Your task to perform on an android device: clear all cookies in the chrome app Image 0: 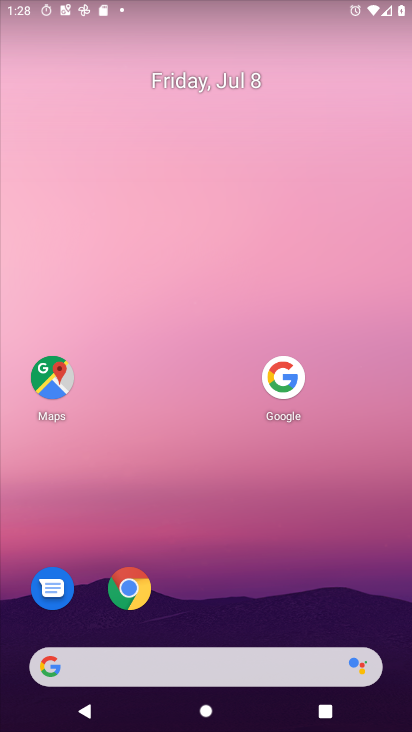
Step 0: click (125, 595)
Your task to perform on an android device: clear all cookies in the chrome app Image 1: 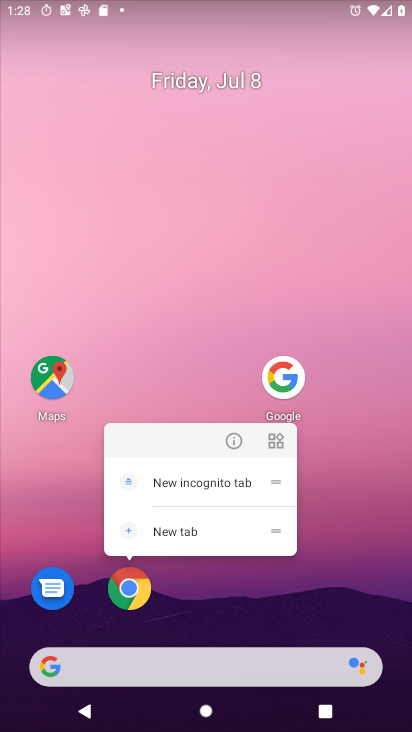
Step 1: click (141, 588)
Your task to perform on an android device: clear all cookies in the chrome app Image 2: 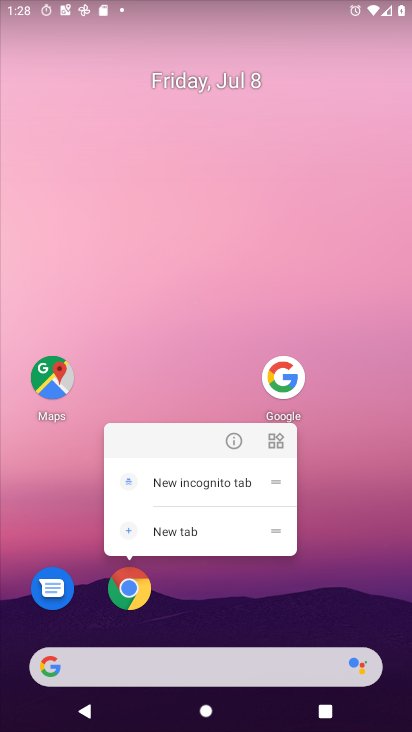
Step 2: click (134, 585)
Your task to perform on an android device: clear all cookies in the chrome app Image 3: 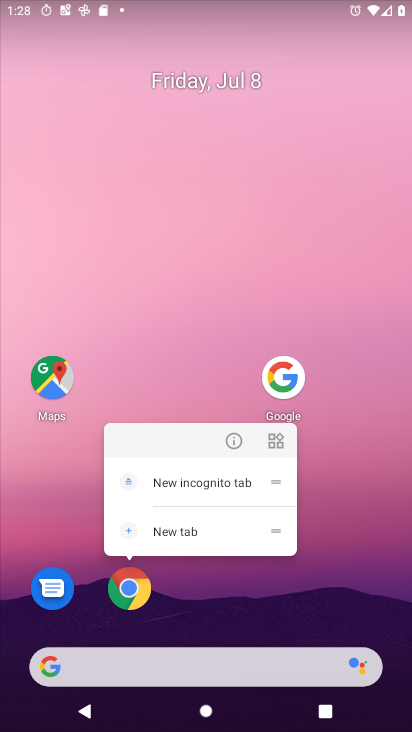
Step 3: click (122, 597)
Your task to perform on an android device: clear all cookies in the chrome app Image 4: 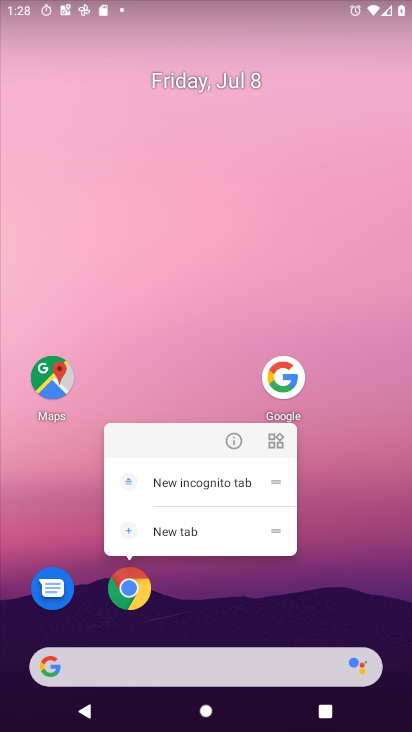
Step 4: click (130, 589)
Your task to perform on an android device: clear all cookies in the chrome app Image 5: 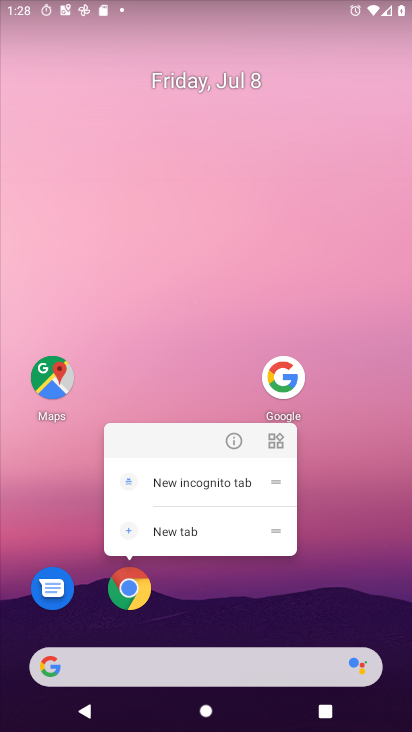
Step 5: click (130, 596)
Your task to perform on an android device: clear all cookies in the chrome app Image 6: 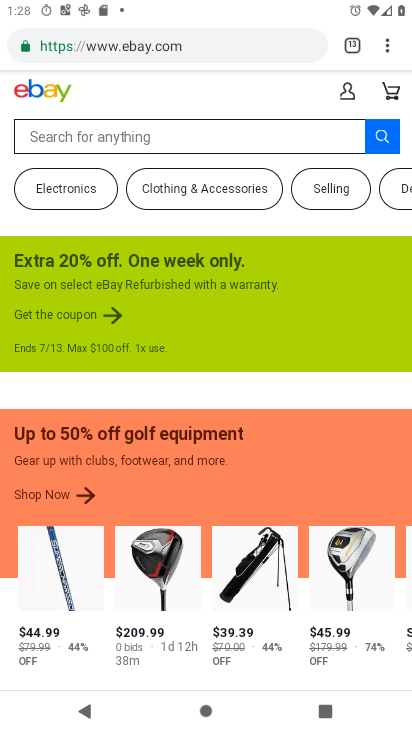
Step 6: drag from (389, 46) to (275, 546)
Your task to perform on an android device: clear all cookies in the chrome app Image 7: 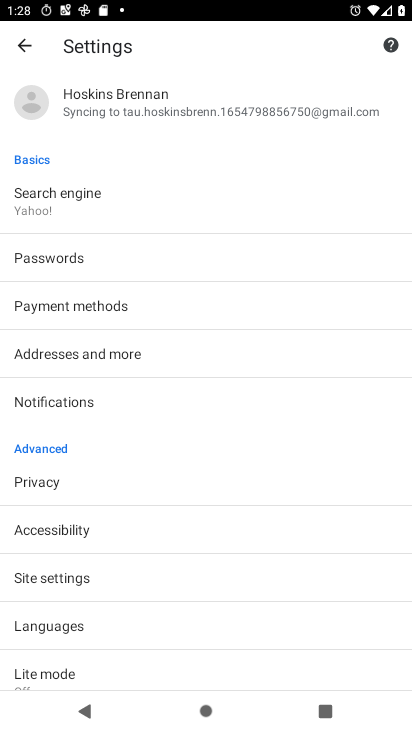
Step 7: click (49, 483)
Your task to perform on an android device: clear all cookies in the chrome app Image 8: 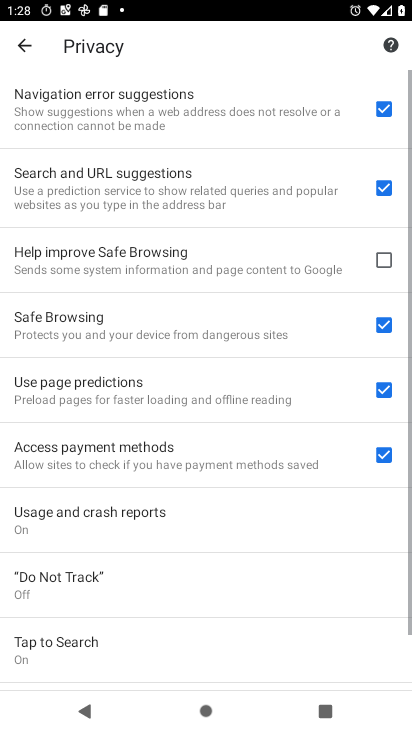
Step 8: drag from (167, 618) to (285, 145)
Your task to perform on an android device: clear all cookies in the chrome app Image 9: 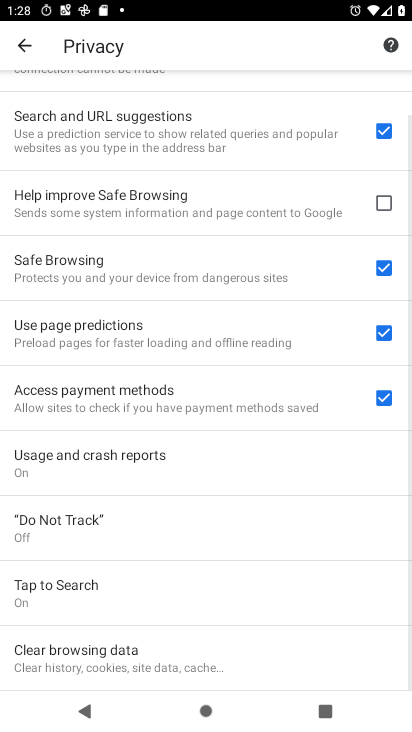
Step 9: click (148, 649)
Your task to perform on an android device: clear all cookies in the chrome app Image 10: 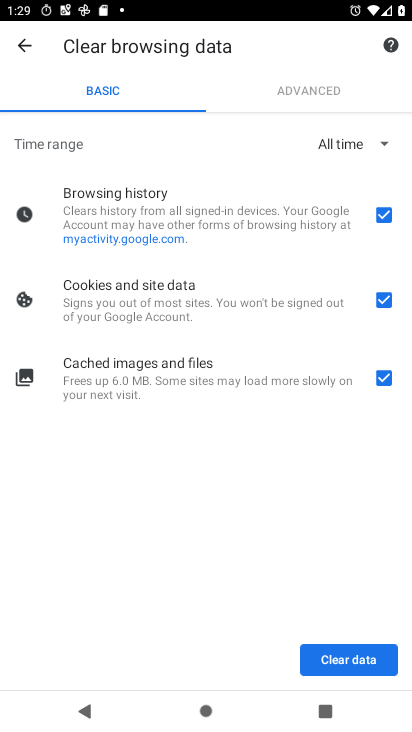
Step 10: click (332, 660)
Your task to perform on an android device: clear all cookies in the chrome app Image 11: 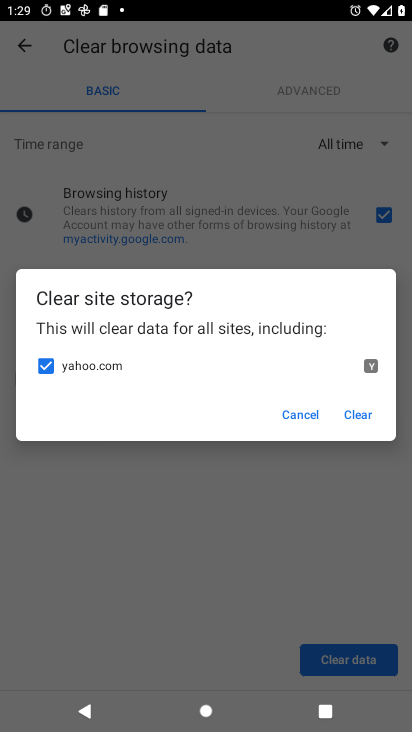
Step 11: click (365, 418)
Your task to perform on an android device: clear all cookies in the chrome app Image 12: 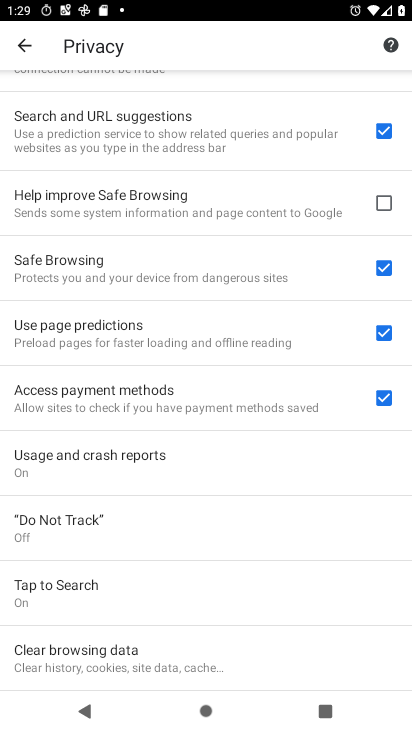
Step 12: task complete